Your task to perform on an android device: turn on priority inbox in the gmail app Image 0: 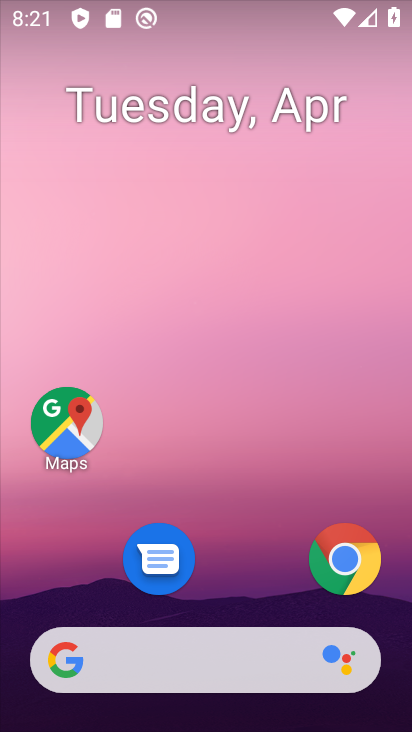
Step 0: drag from (239, 667) to (208, 123)
Your task to perform on an android device: turn on priority inbox in the gmail app Image 1: 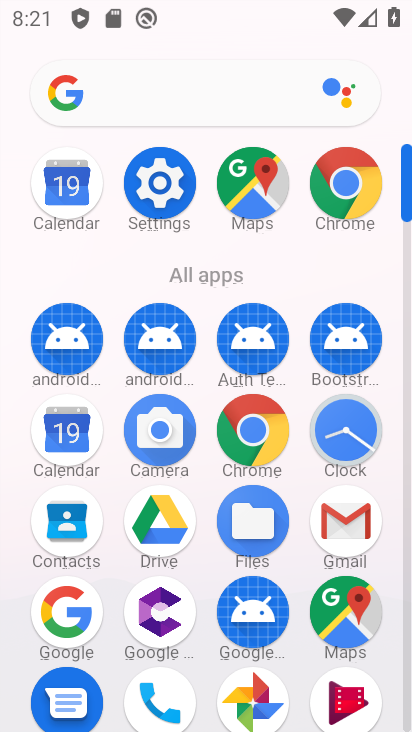
Step 1: click (346, 525)
Your task to perform on an android device: turn on priority inbox in the gmail app Image 2: 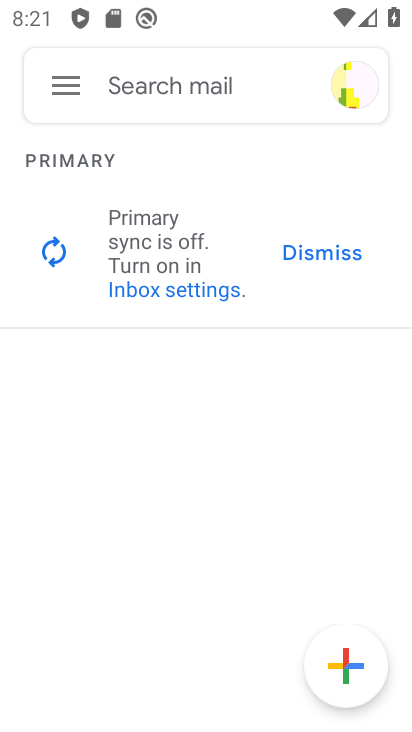
Step 2: click (330, 250)
Your task to perform on an android device: turn on priority inbox in the gmail app Image 3: 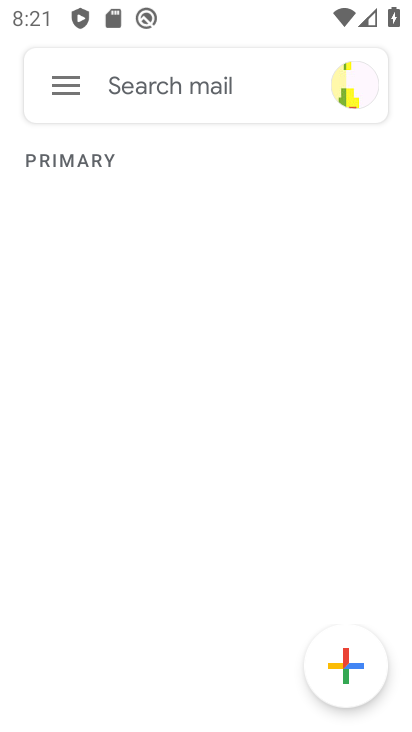
Step 3: click (68, 94)
Your task to perform on an android device: turn on priority inbox in the gmail app Image 4: 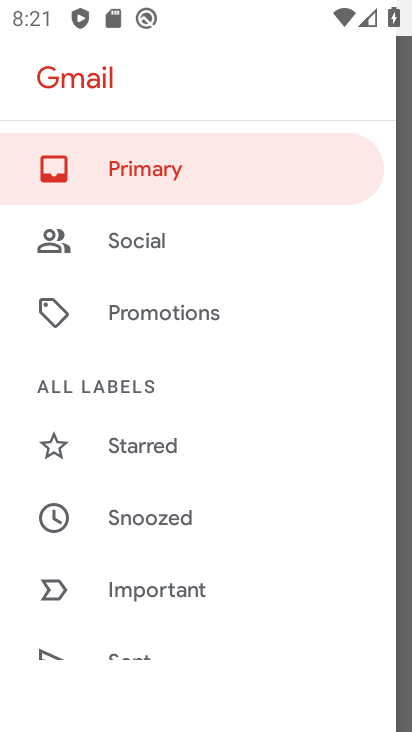
Step 4: drag from (150, 594) to (206, 98)
Your task to perform on an android device: turn on priority inbox in the gmail app Image 5: 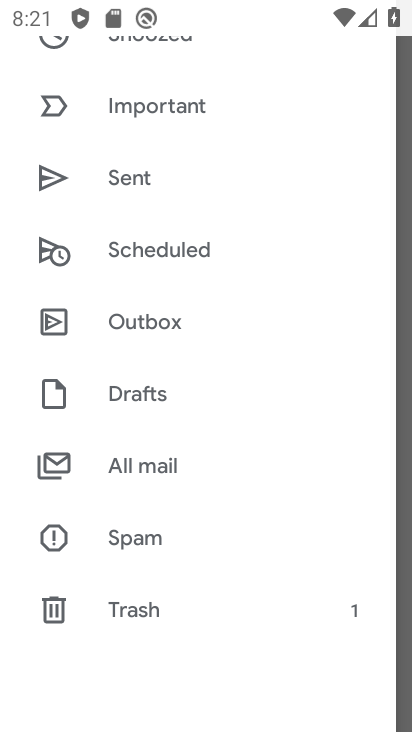
Step 5: drag from (160, 456) to (196, 138)
Your task to perform on an android device: turn on priority inbox in the gmail app Image 6: 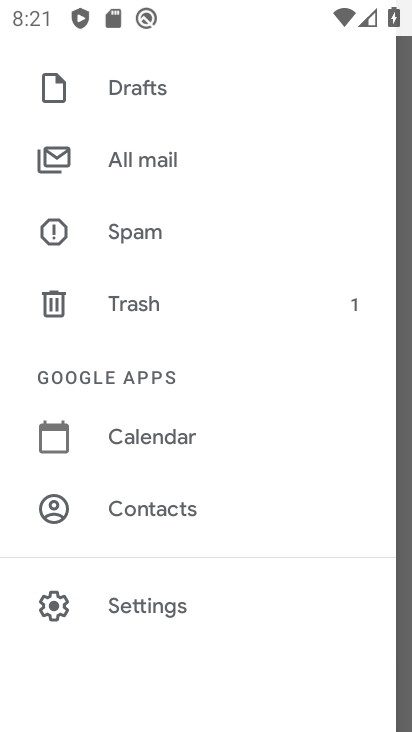
Step 6: click (137, 602)
Your task to perform on an android device: turn on priority inbox in the gmail app Image 7: 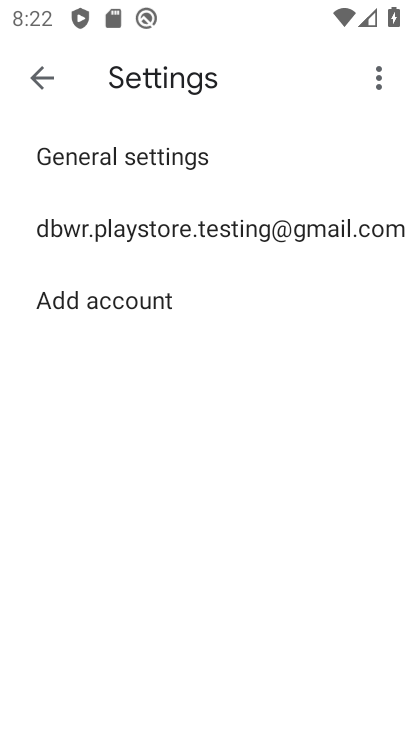
Step 7: click (196, 237)
Your task to perform on an android device: turn on priority inbox in the gmail app Image 8: 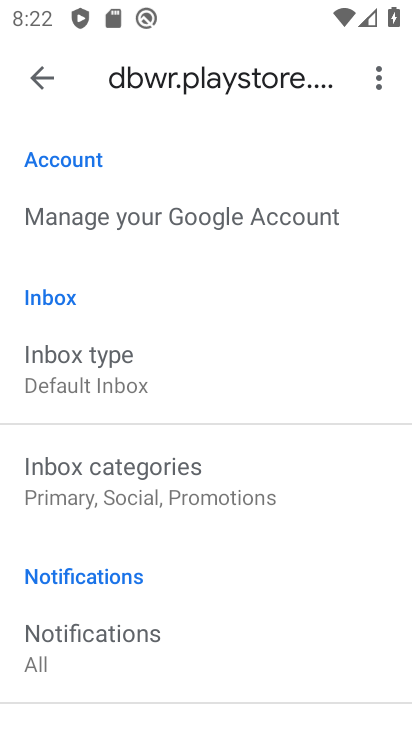
Step 8: click (85, 383)
Your task to perform on an android device: turn on priority inbox in the gmail app Image 9: 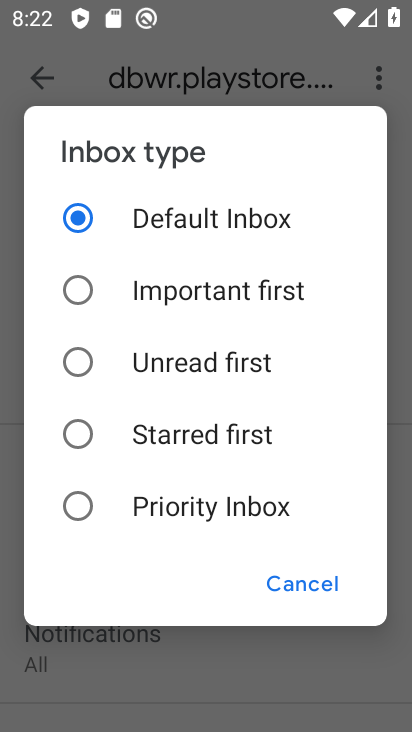
Step 9: click (196, 509)
Your task to perform on an android device: turn on priority inbox in the gmail app Image 10: 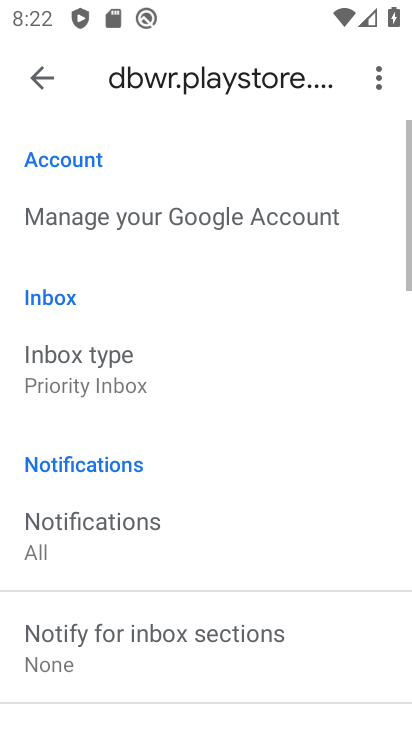
Step 10: task complete